Your task to perform on an android device: Go to eBay Image 0: 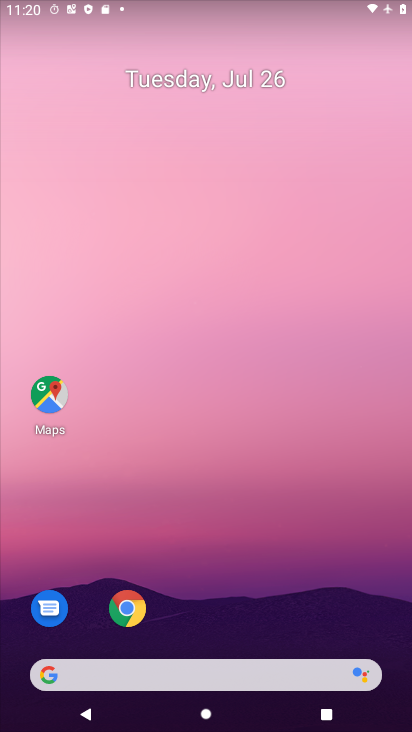
Step 0: click (147, 604)
Your task to perform on an android device: Go to eBay Image 1: 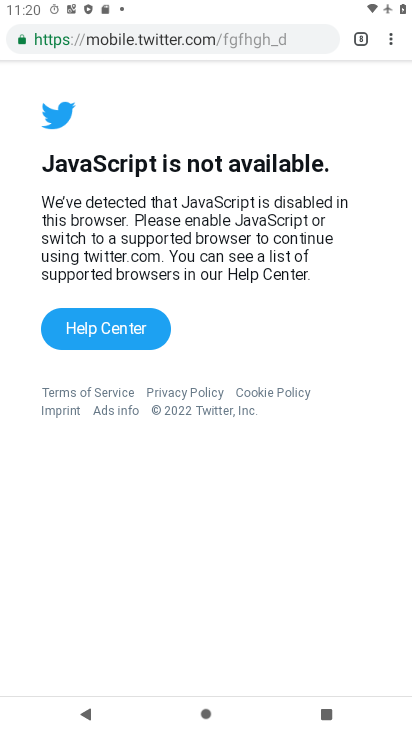
Step 1: click (360, 36)
Your task to perform on an android device: Go to eBay Image 2: 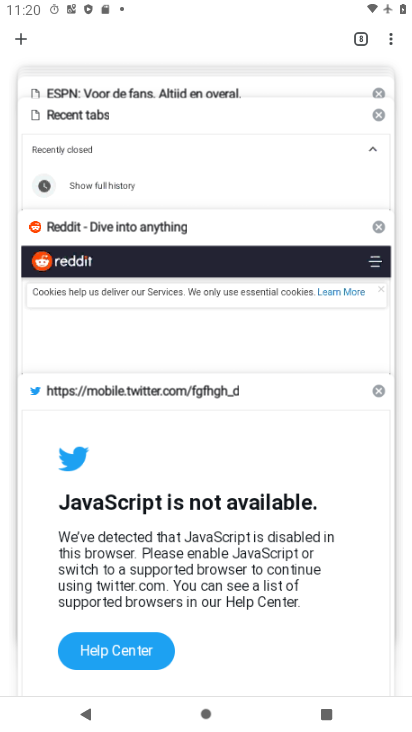
Step 2: click (28, 39)
Your task to perform on an android device: Go to eBay Image 3: 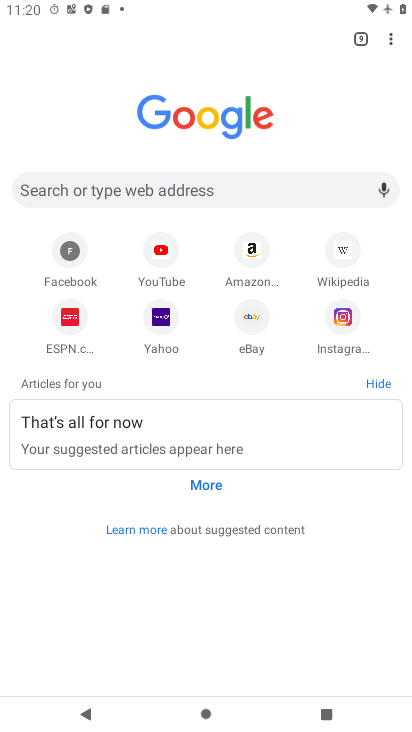
Step 3: click (240, 321)
Your task to perform on an android device: Go to eBay Image 4: 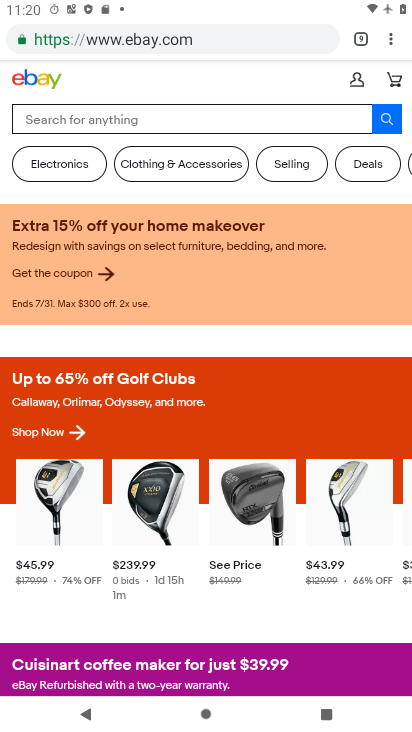
Step 4: task complete